Your task to perform on an android device: Open Chrome and go to the settings page Image 0: 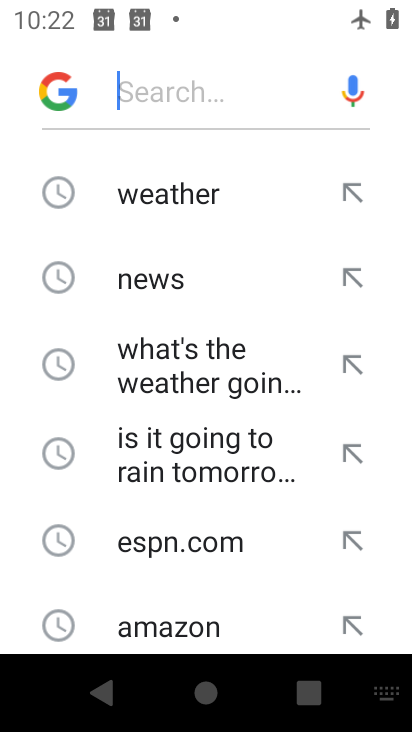
Step 0: press back button
Your task to perform on an android device: Open Chrome and go to the settings page Image 1: 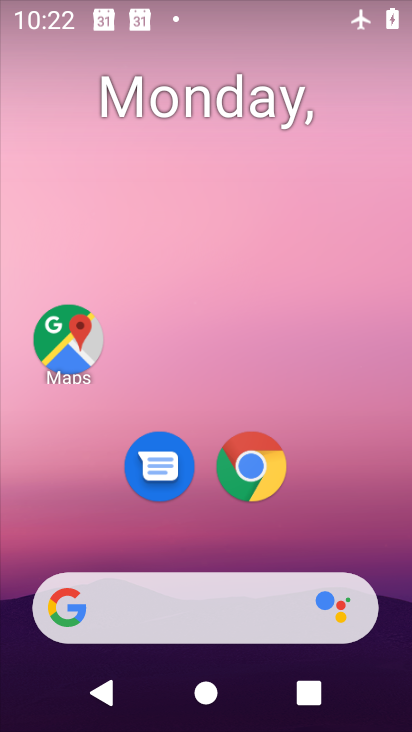
Step 1: drag from (377, 557) to (161, 1)
Your task to perform on an android device: Open Chrome and go to the settings page Image 2: 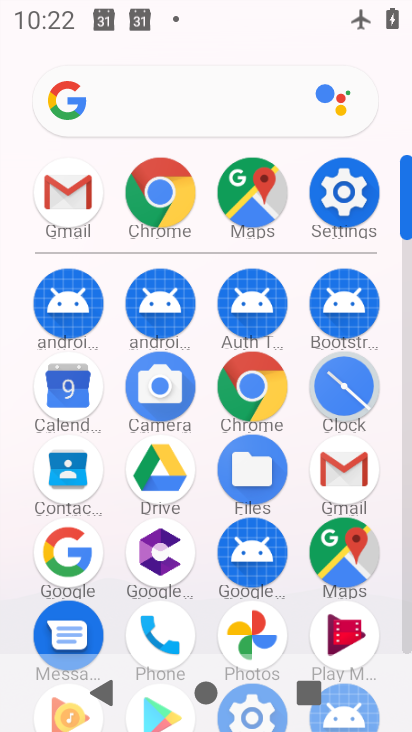
Step 2: click (354, 188)
Your task to perform on an android device: Open Chrome and go to the settings page Image 3: 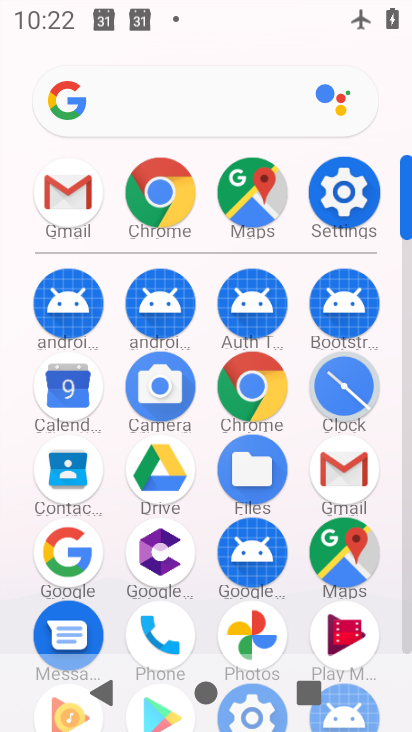
Step 3: click (355, 189)
Your task to perform on an android device: Open Chrome and go to the settings page Image 4: 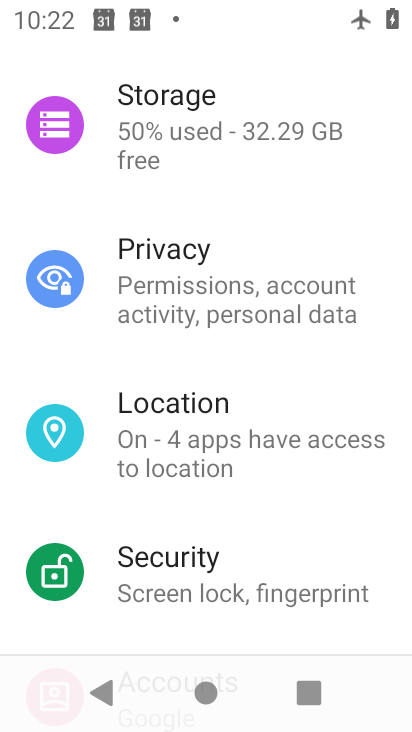
Step 4: drag from (225, 202) to (261, 550)
Your task to perform on an android device: Open Chrome and go to the settings page Image 5: 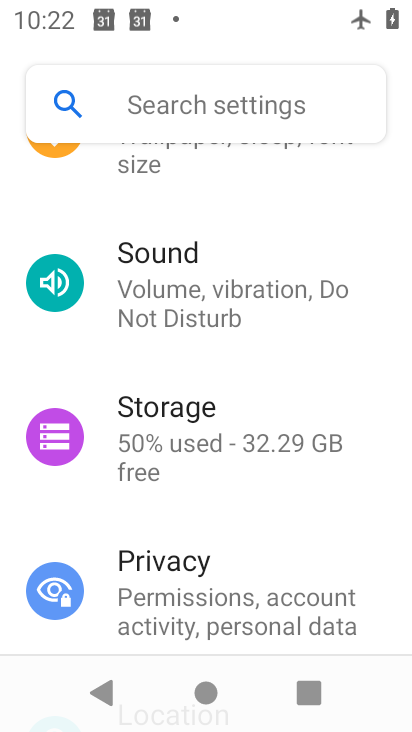
Step 5: drag from (193, 205) to (167, 557)
Your task to perform on an android device: Open Chrome and go to the settings page Image 6: 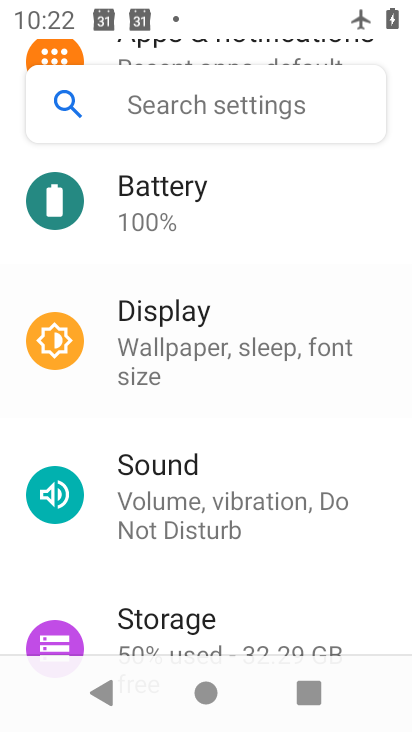
Step 6: drag from (153, 229) to (220, 536)
Your task to perform on an android device: Open Chrome and go to the settings page Image 7: 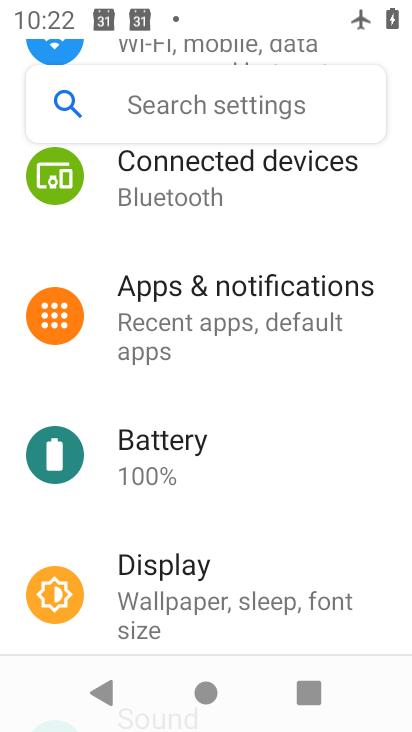
Step 7: drag from (285, 248) to (266, 571)
Your task to perform on an android device: Open Chrome and go to the settings page Image 8: 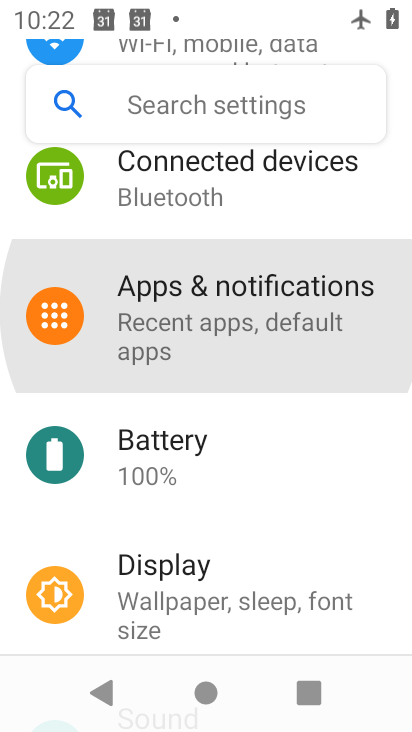
Step 8: drag from (178, 254) to (183, 553)
Your task to perform on an android device: Open Chrome and go to the settings page Image 9: 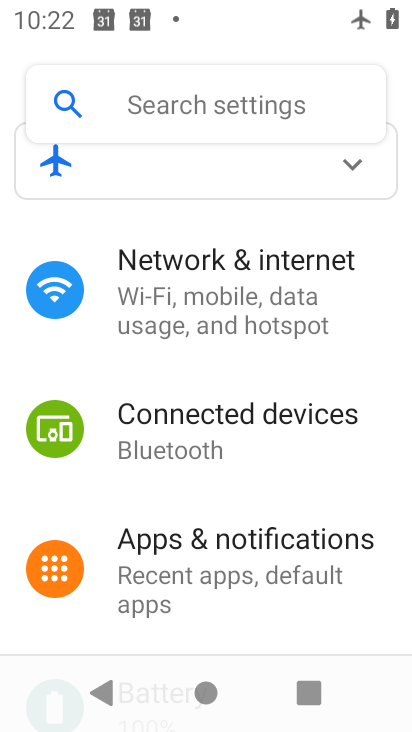
Step 9: press back button
Your task to perform on an android device: Open Chrome and go to the settings page Image 10: 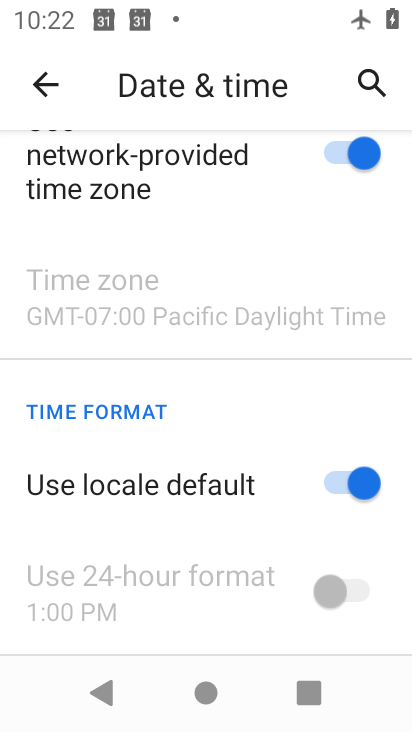
Step 10: click (46, 78)
Your task to perform on an android device: Open Chrome and go to the settings page Image 11: 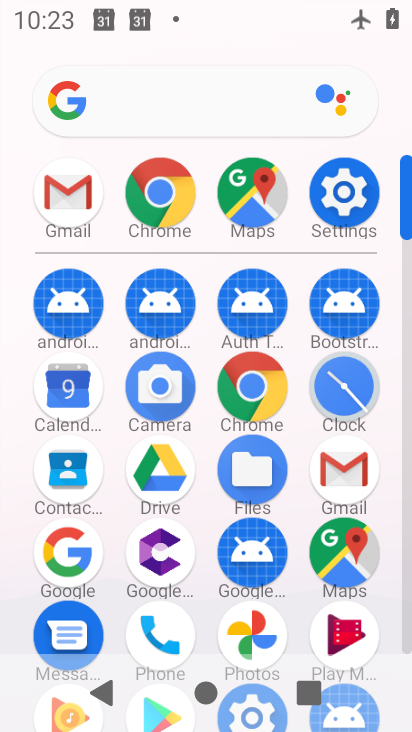
Step 11: click (160, 189)
Your task to perform on an android device: Open Chrome and go to the settings page Image 12: 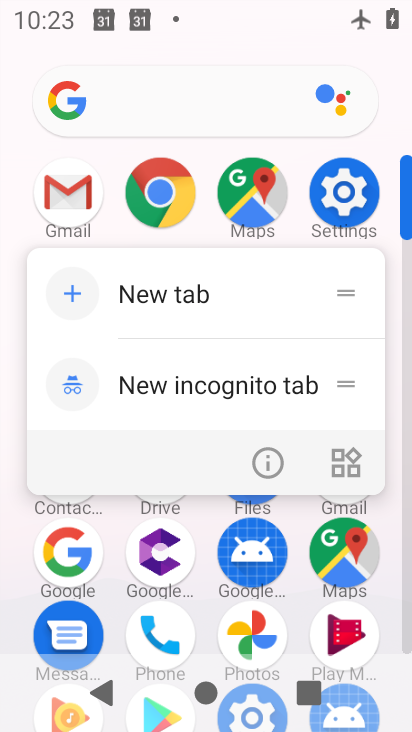
Step 12: click (159, 189)
Your task to perform on an android device: Open Chrome and go to the settings page Image 13: 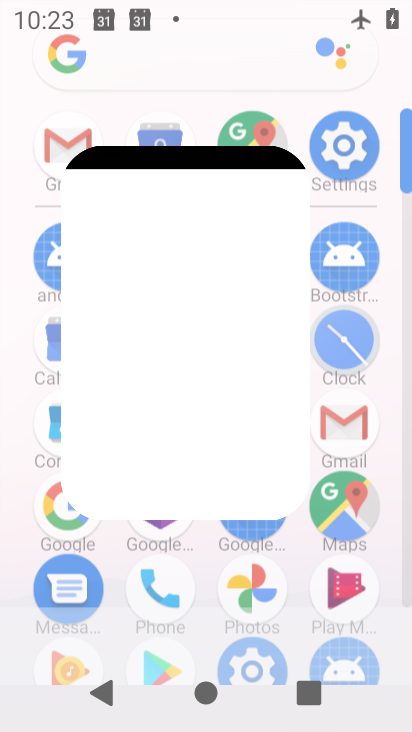
Step 13: click (160, 189)
Your task to perform on an android device: Open Chrome and go to the settings page Image 14: 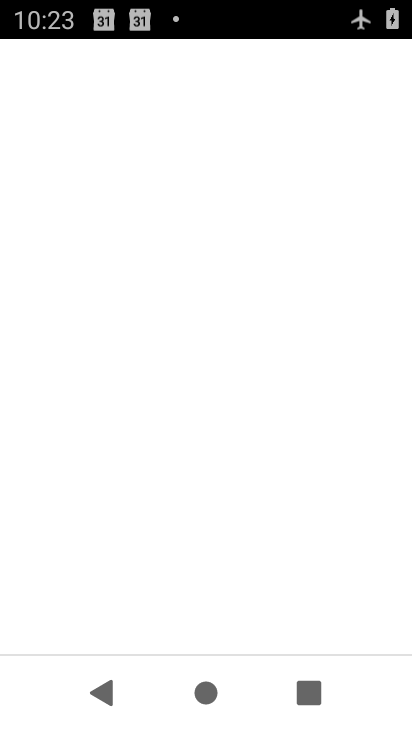
Step 14: click (160, 189)
Your task to perform on an android device: Open Chrome and go to the settings page Image 15: 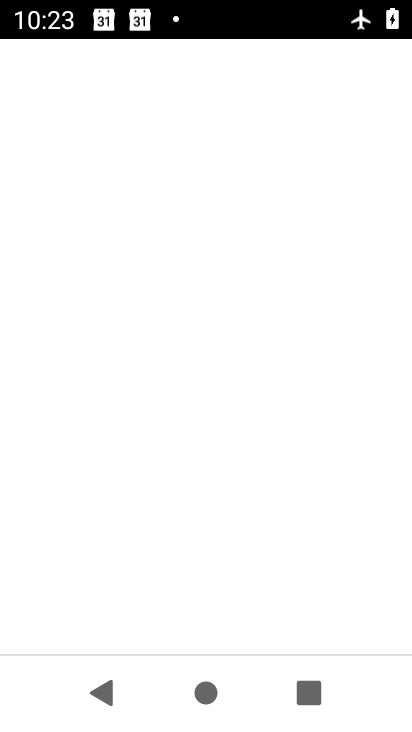
Step 15: click (160, 189)
Your task to perform on an android device: Open Chrome and go to the settings page Image 16: 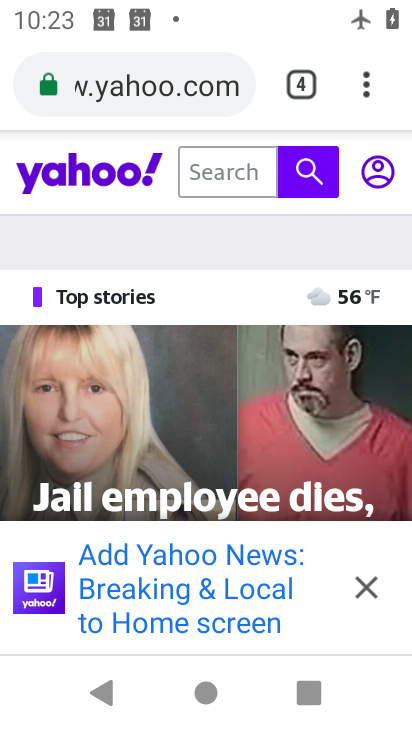
Step 16: drag from (363, 91) to (97, 514)
Your task to perform on an android device: Open Chrome and go to the settings page Image 17: 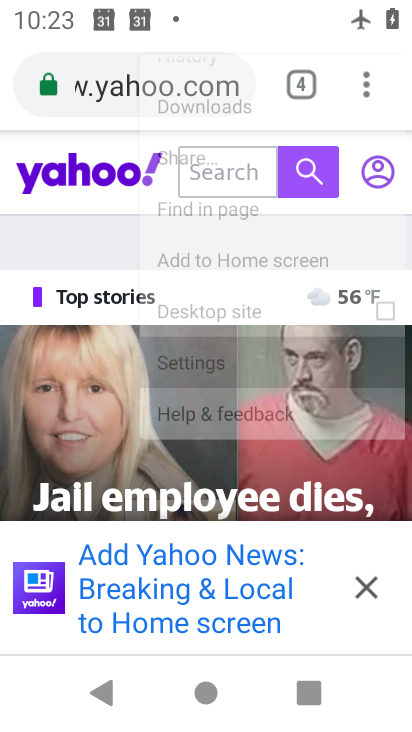
Step 17: click (97, 514)
Your task to perform on an android device: Open Chrome and go to the settings page Image 18: 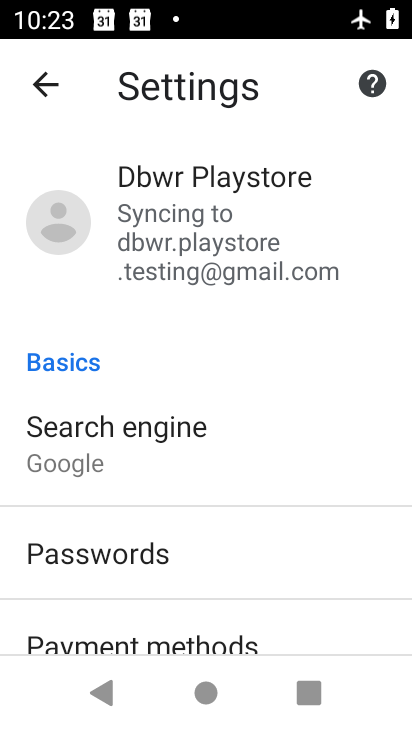
Step 18: task complete